Your task to perform on an android device: Open privacy settings Image 0: 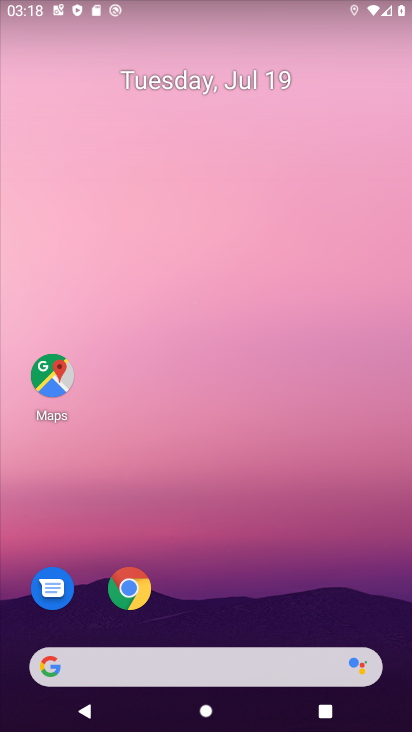
Step 0: drag from (283, 574) to (215, 68)
Your task to perform on an android device: Open privacy settings Image 1: 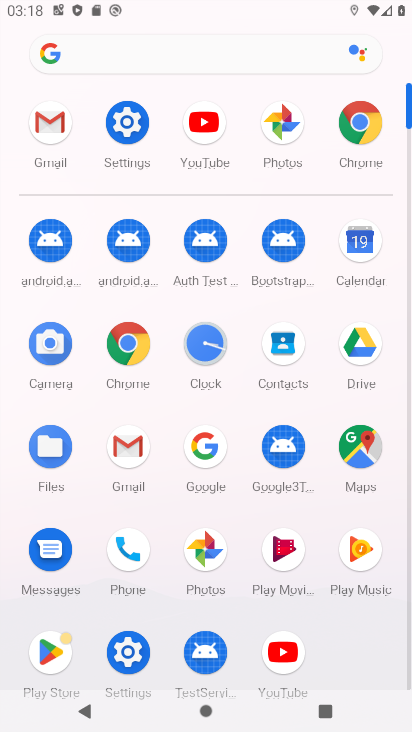
Step 1: click (125, 119)
Your task to perform on an android device: Open privacy settings Image 2: 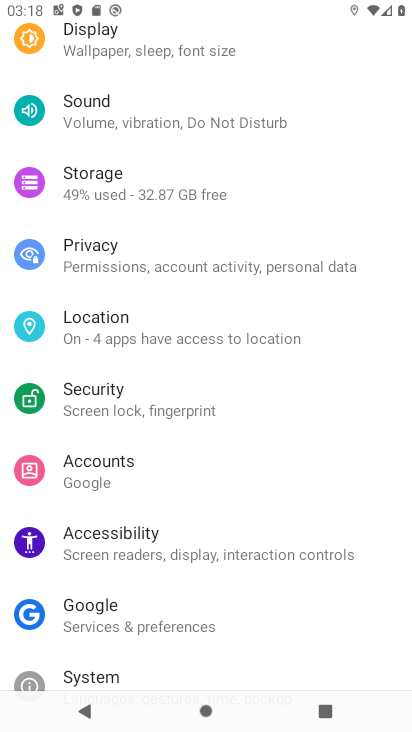
Step 2: click (92, 242)
Your task to perform on an android device: Open privacy settings Image 3: 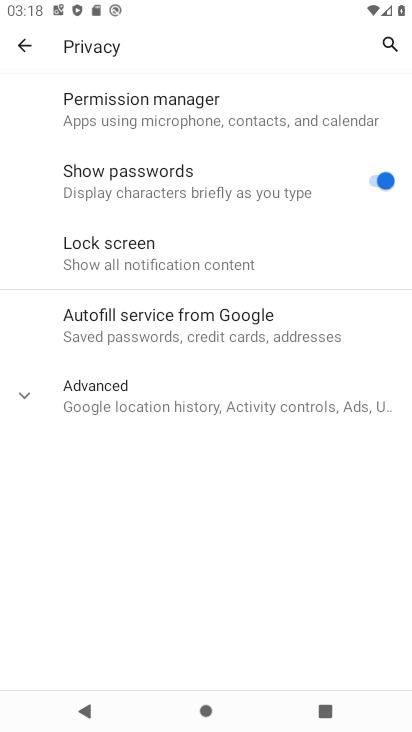
Step 3: task complete